Your task to perform on an android device: turn on the 12-hour format for clock Image 0: 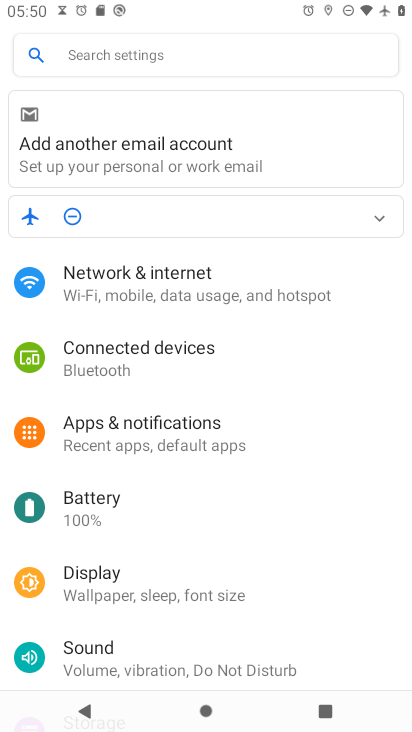
Step 0: press back button
Your task to perform on an android device: turn on the 12-hour format for clock Image 1: 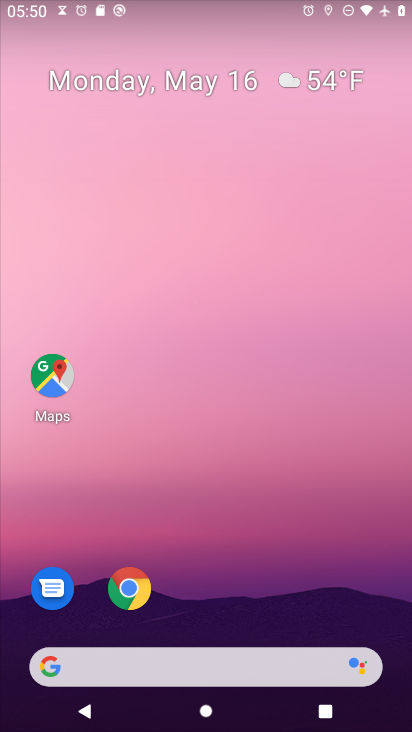
Step 1: drag from (220, 538) to (218, 59)
Your task to perform on an android device: turn on the 12-hour format for clock Image 2: 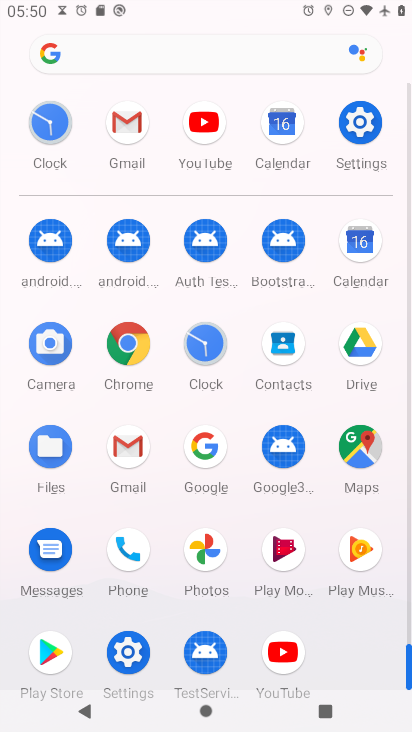
Step 2: click (358, 121)
Your task to perform on an android device: turn on the 12-hour format for clock Image 3: 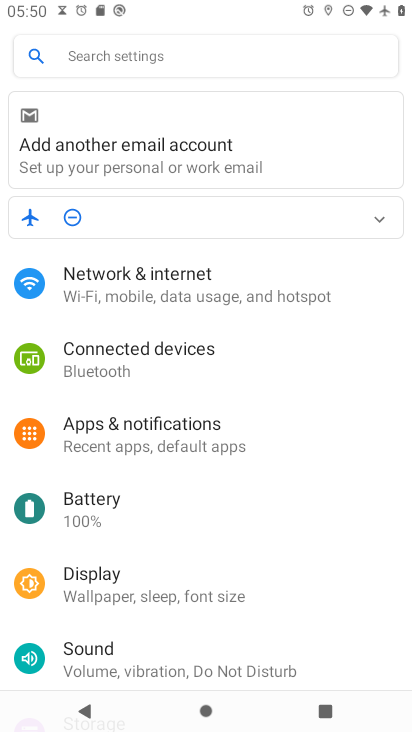
Step 3: drag from (248, 522) to (267, 130)
Your task to perform on an android device: turn on the 12-hour format for clock Image 4: 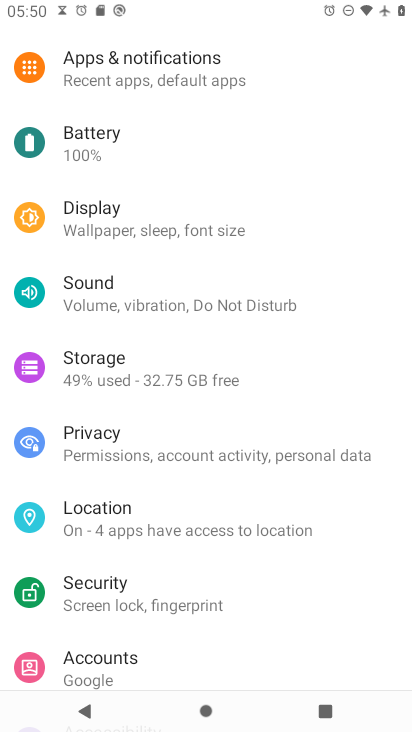
Step 4: press back button
Your task to perform on an android device: turn on the 12-hour format for clock Image 5: 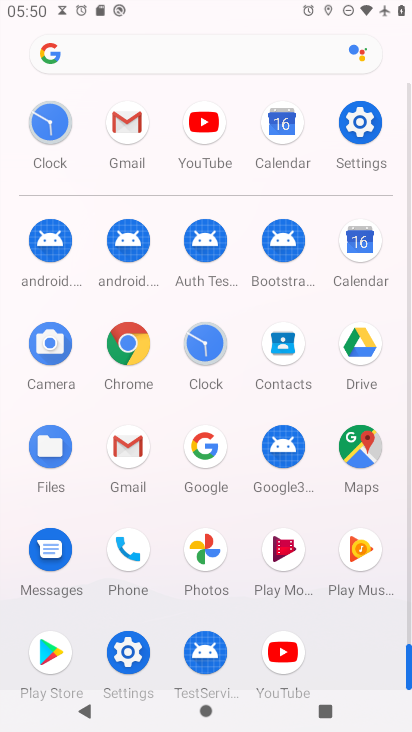
Step 5: click (206, 343)
Your task to perform on an android device: turn on the 12-hour format for clock Image 6: 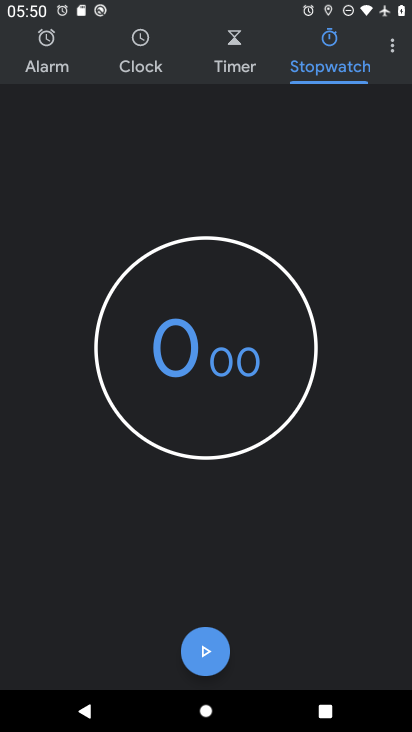
Step 6: drag from (389, 43) to (327, 102)
Your task to perform on an android device: turn on the 12-hour format for clock Image 7: 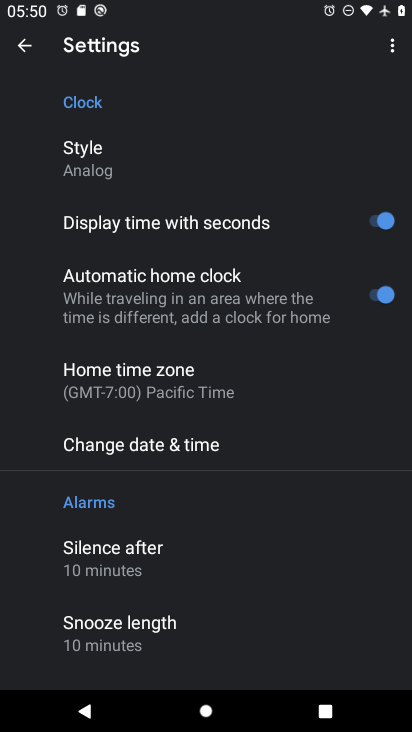
Step 7: drag from (277, 545) to (232, 122)
Your task to perform on an android device: turn on the 12-hour format for clock Image 8: 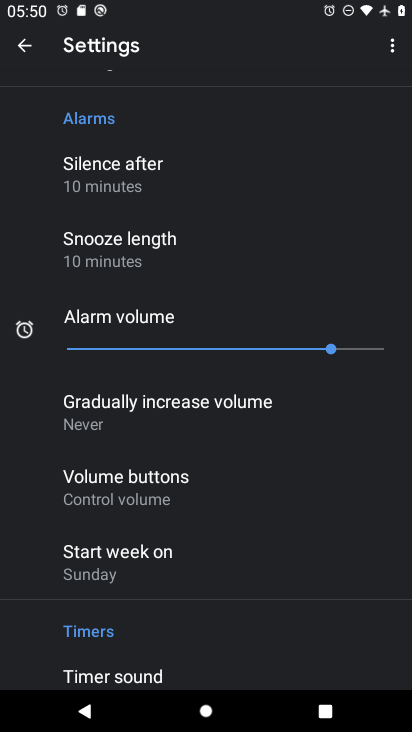
Step 8: drag from (191, 532) to (190, 170)
Your task to perform on an android device: turn on the 12-hour format for clock Image 9: 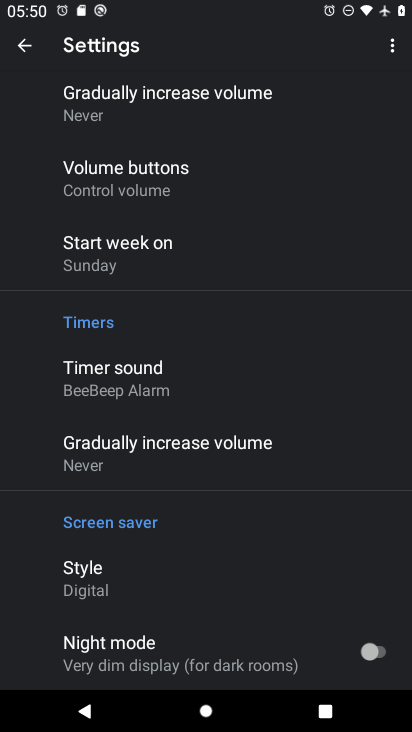
Step 9: drag from (172, 569) to (176, 83)
Your task to perform on an android device: turn on the 12-hour format for clock Image 10: 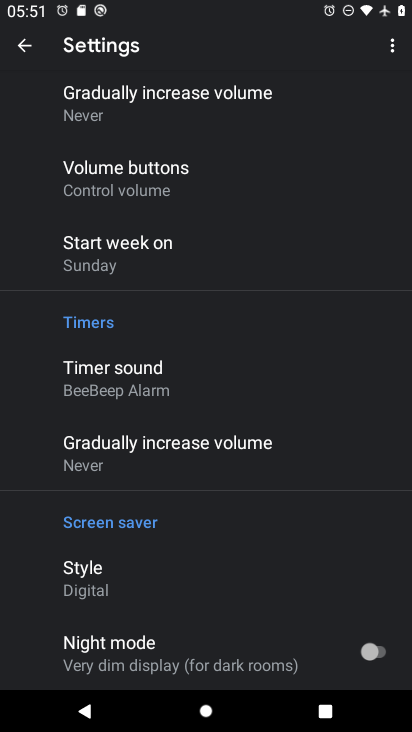
Step 10: drag from (216, 187) to (204, 627)
Your task to perform on an android device: turn on the 12-hour format for clock Image 11: 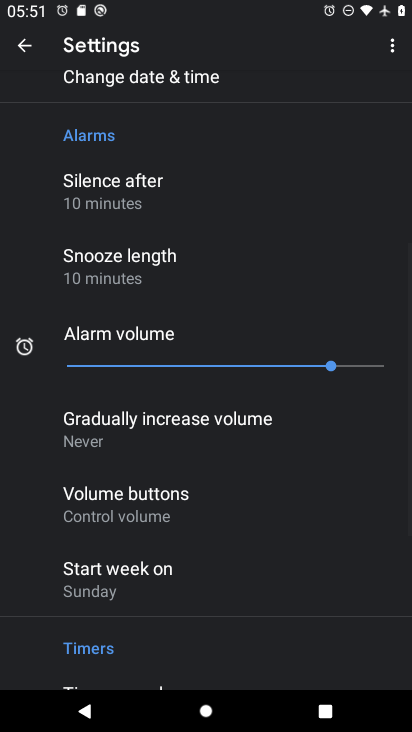
Step 11: drag from (215, 263) to (203, 605)
Your task to perform on an android device: turn on the 12-hour format for clock Image 12: 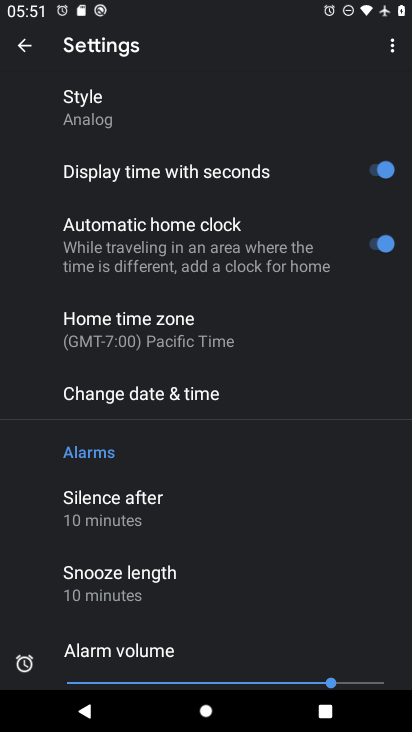
Step 12: click (129, 389)
Your task to perform on an android device: turn on the 12-hour format for clock Image 13: 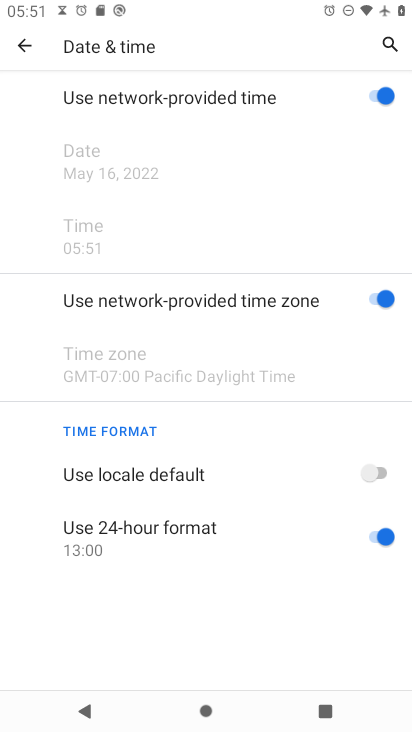
Step 13: click (374, 538)
Your task to perform on an android device: turn on the 12-hour format for clock Image 14: 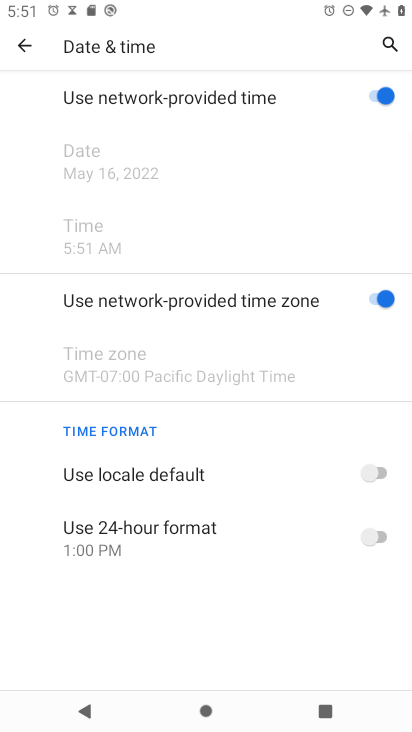
Step 14: click (386, 472)
Your task to perform on an android device: turn on the 12-hour format for clock Image 15: 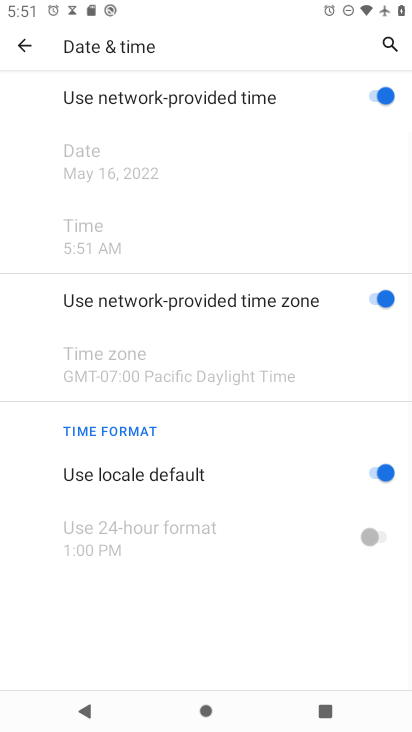
Step 15: task complete